Your task to perform on an android device: turn on wifi Image 0: 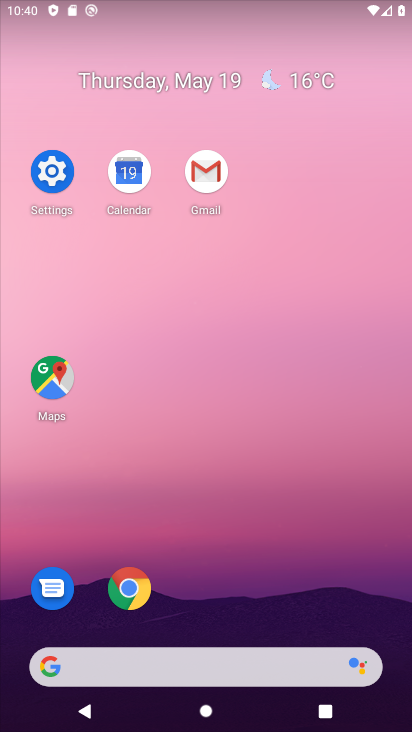
Step 0: click (49, 169)
Your task to perform on an android device: turn on wifi Image 1: 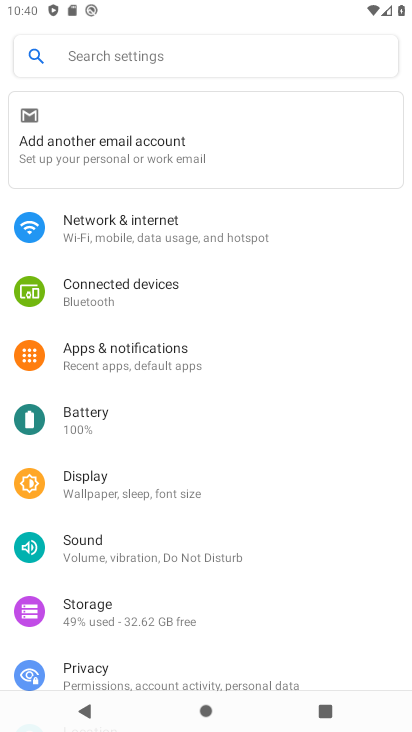
Step 1: click (163, 236)
Your task to perform on an android device: turn on wifi Image 2: 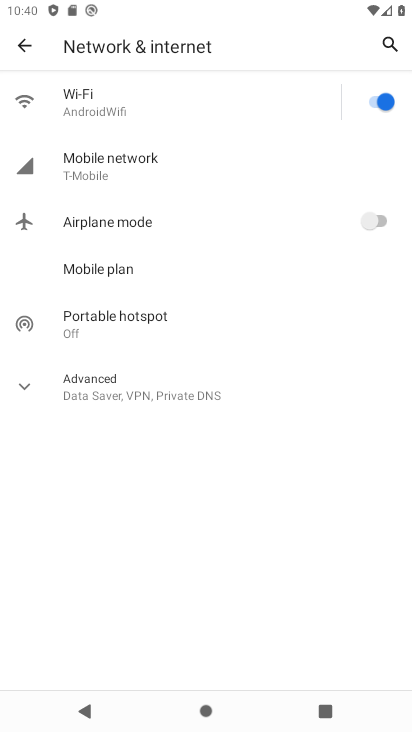
Step 2: task complete